Your task to perform on an android device: check google app version Image 0: 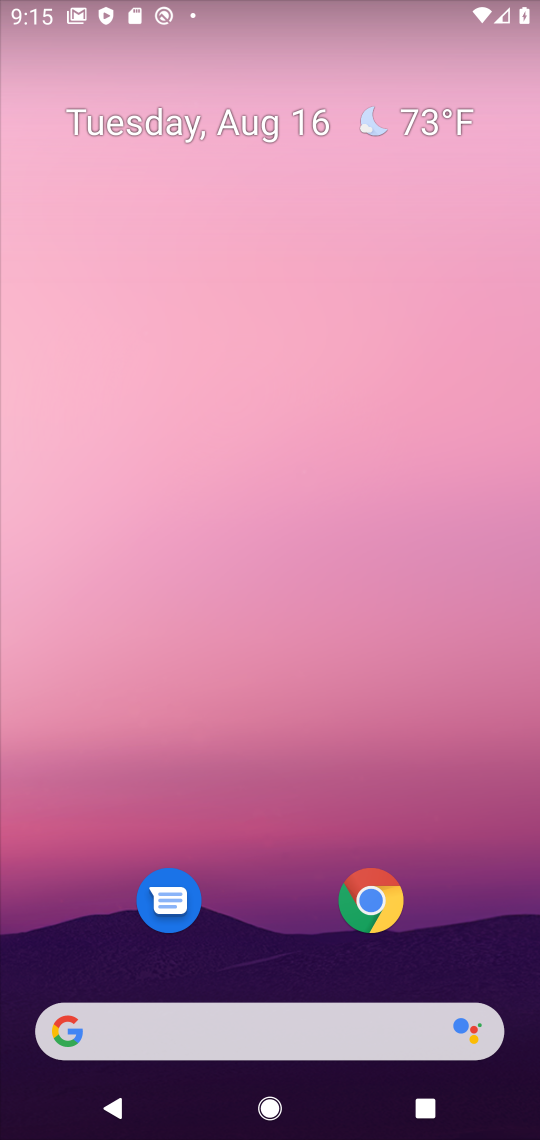
Step 0: drag from (289, 725) to (325, 299)
Your task to perform on an android device: check google app version Image 1: 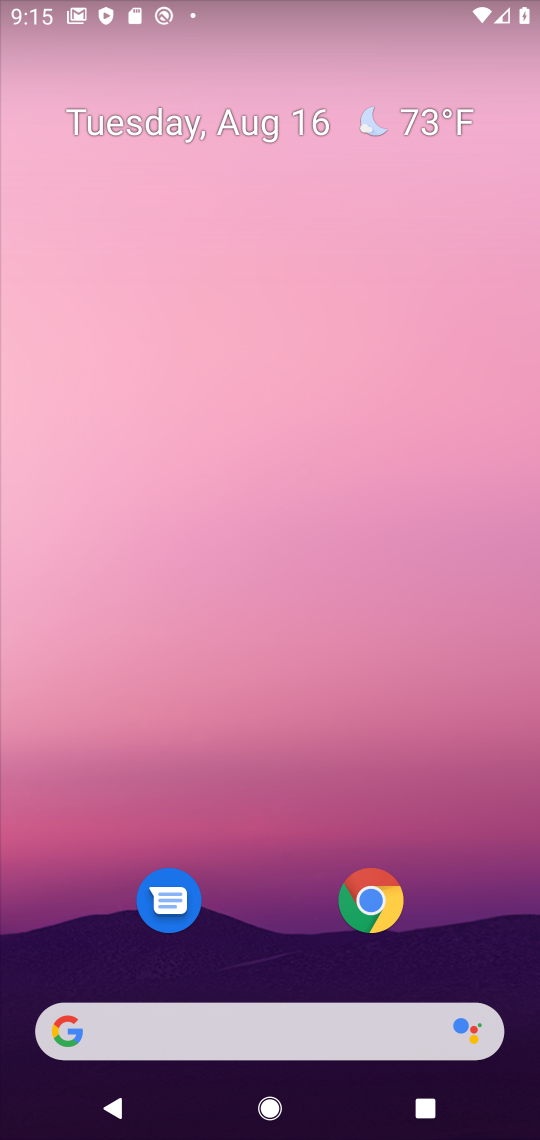
Step 1: drag from (269, 885) to (267, 272)
Your task to perform on an android device: check google app version Image 2: 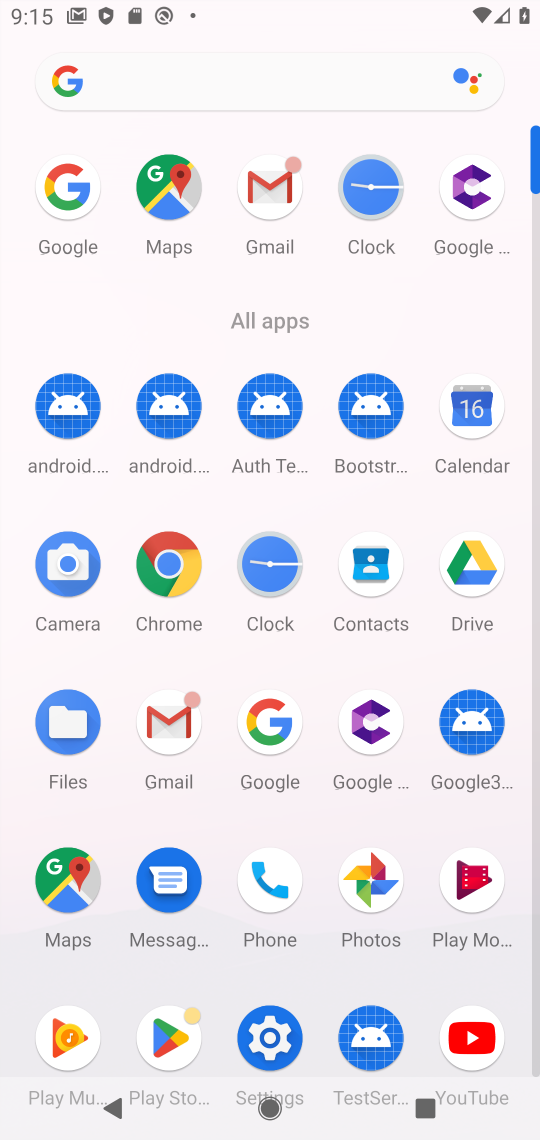
Step 2: click (265, 720)
Your task to perform on an android device: check google app version Image 3: 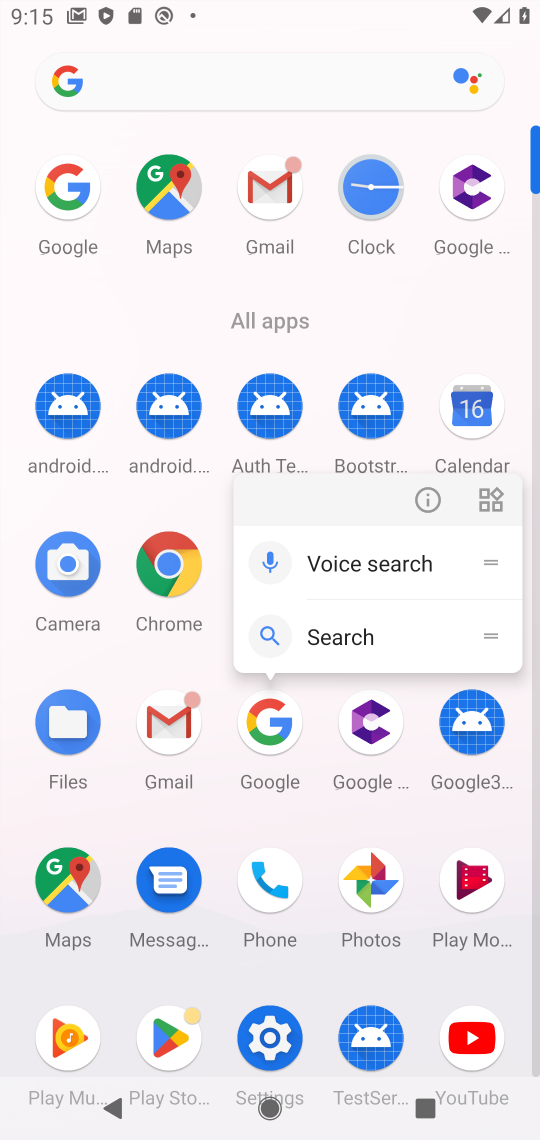
Step 3: click (427, 495)
Your task to perform on an android device: check google app version Image 4: 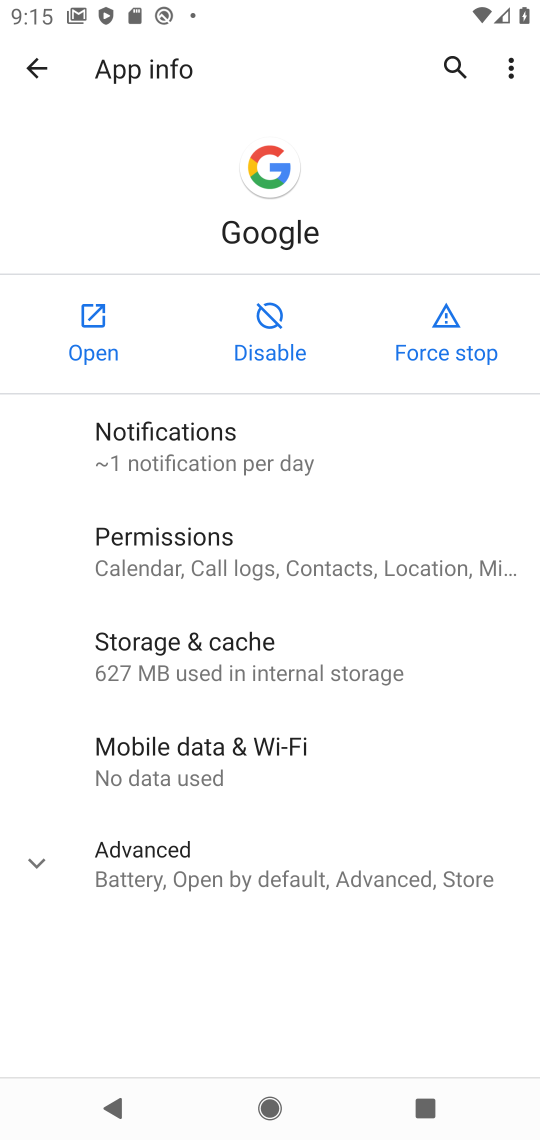
Step 4: drag from (331, 891) to (350, 305)
Your task to perform on an android device: check google app version Image 5: 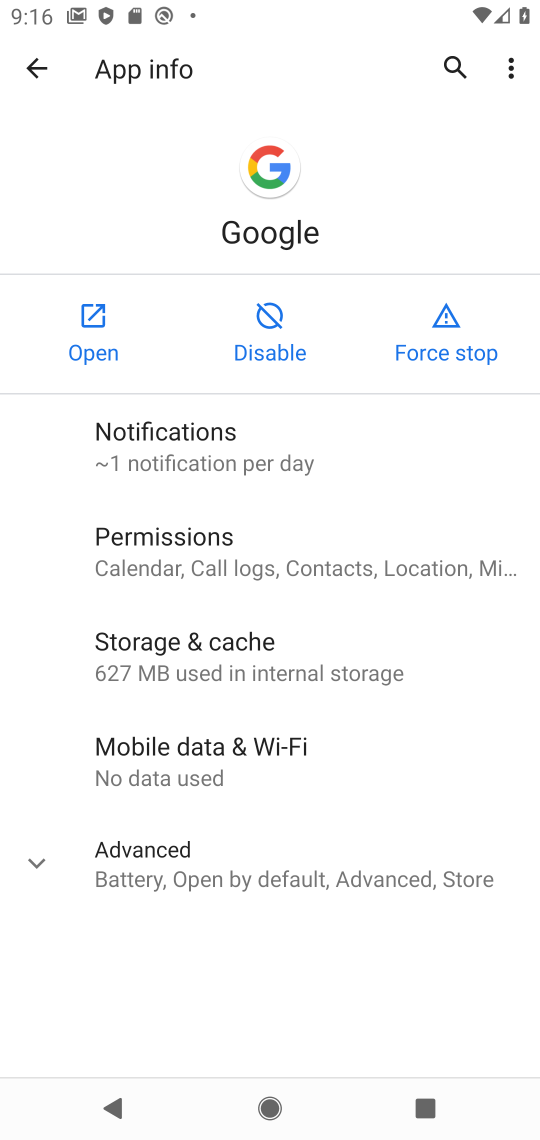
Step 5: click (180, 862)
Your task to perform on an android device: check google app version Image 6: 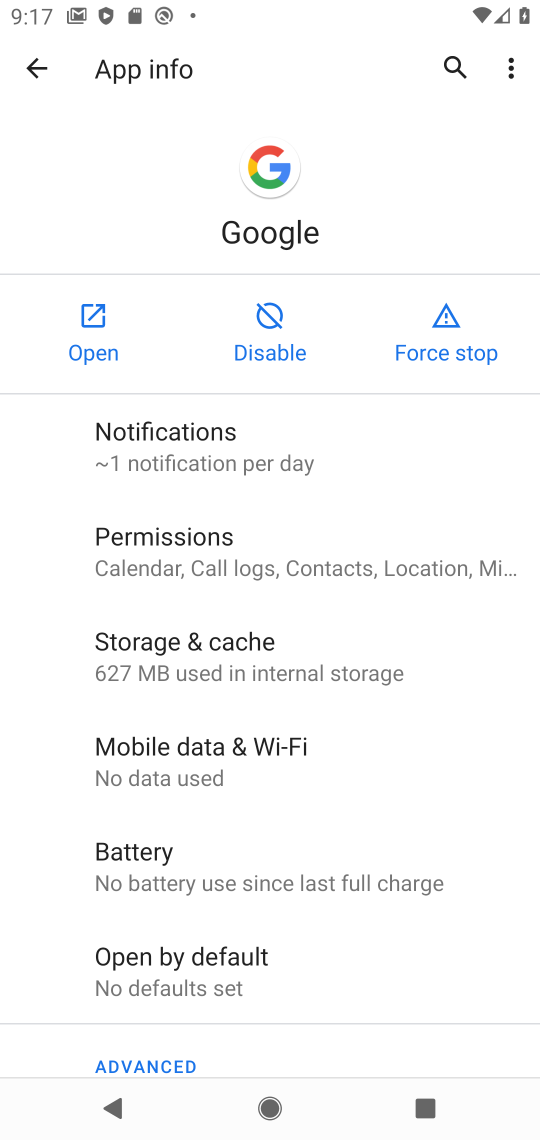
Step 6: task complete